Your task to perform on an android device: Go to Wikipedia Image 0: 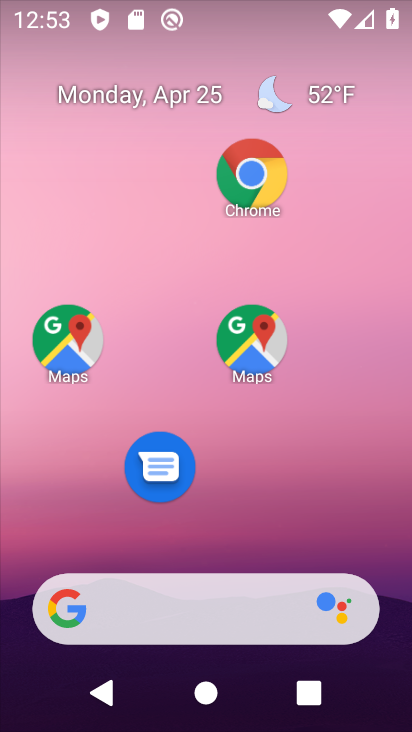
Step 0: click (253, 176)
Your task to perform on an android device: Go to Wikipedia Image 1: 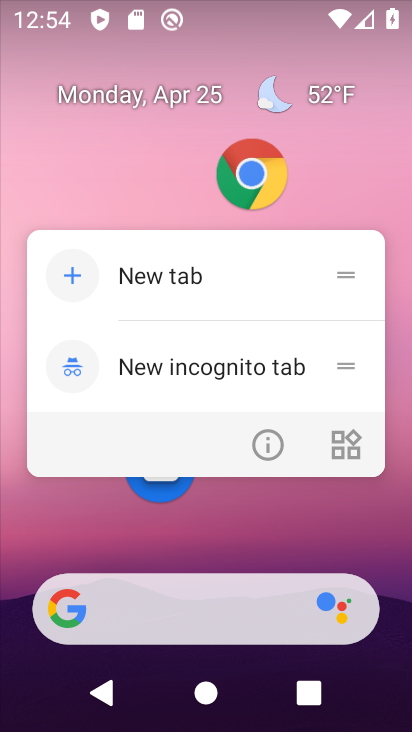
Step 1: click (253, 176)
Your task to perform on an android device: Go to Wikipedia Image 2: 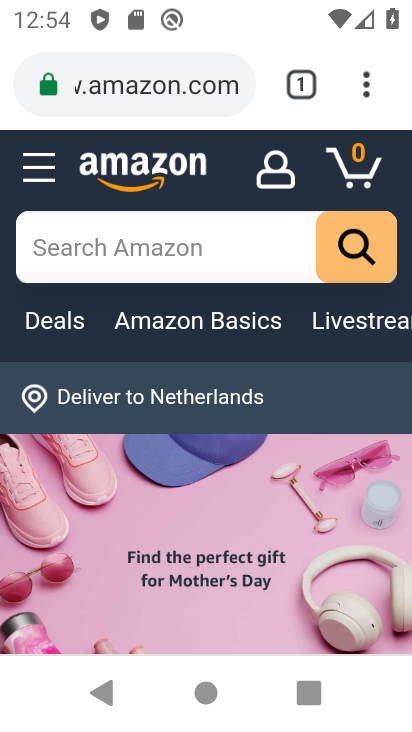
Step 2: press back button
Your task to perform on an android device: Go to Wikipedia Image 3: 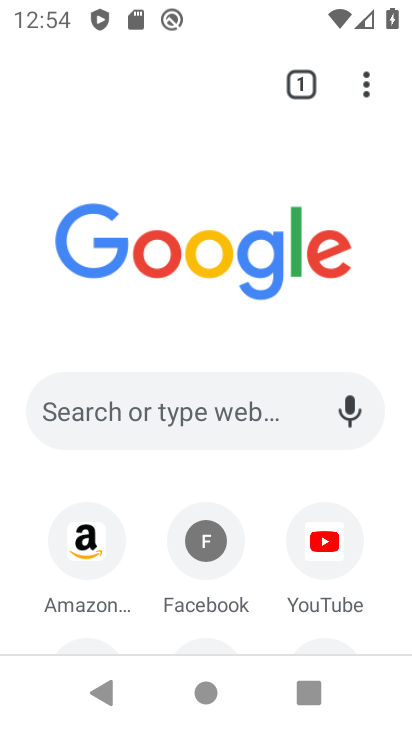
Step 3: drag from (294, 490) to (304, 181)
Your task to perform on an android device: Go to Wikipedia Image 4: 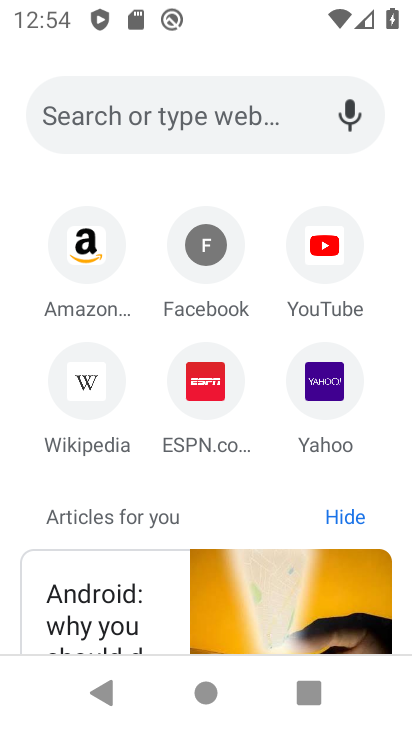
Step 4: click (80, 373)
Your task to perform on an android device: Go to Wikipedia Image 5: 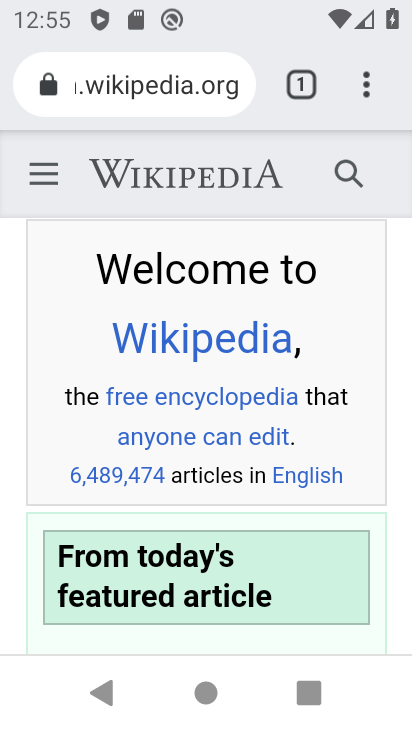
Step 5: task complete